Your task to perform on an android device: Set the phone to "Do not disturb". Image 0: 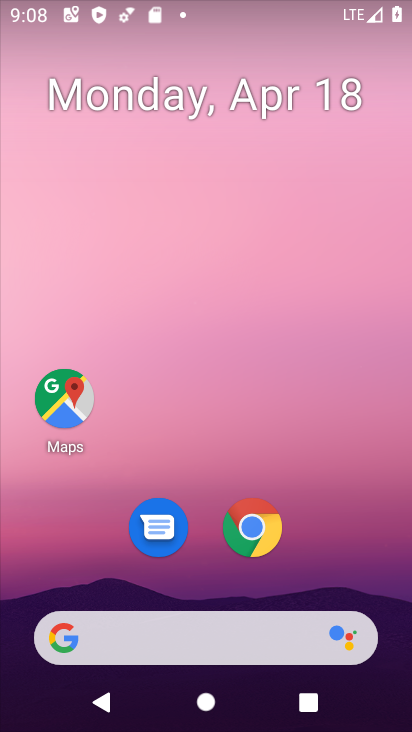
Step 0: drag from (360, 576) to (265, 56)
Your task to perform on an android device: Set the phone to "Do not disturb". Image 1: 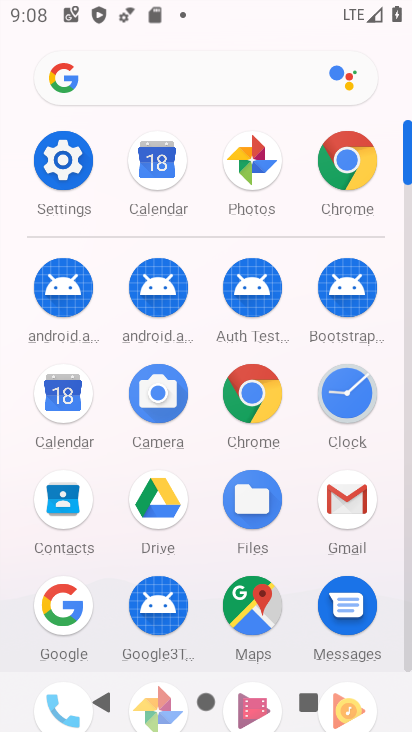
Step 1: click (59, 155)
Your task to perform on an android device: Set the phone to "Do not disturb". Image 2: 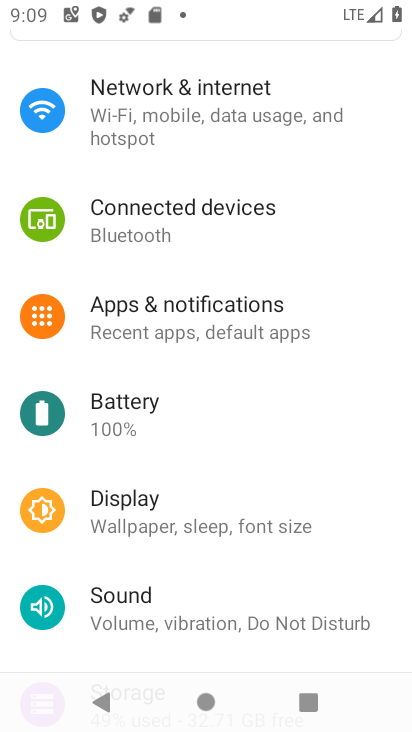
Step 2: click (271, 610)
Your task to perform on an android device: Set the phone to "Do not disturb". Image 3: 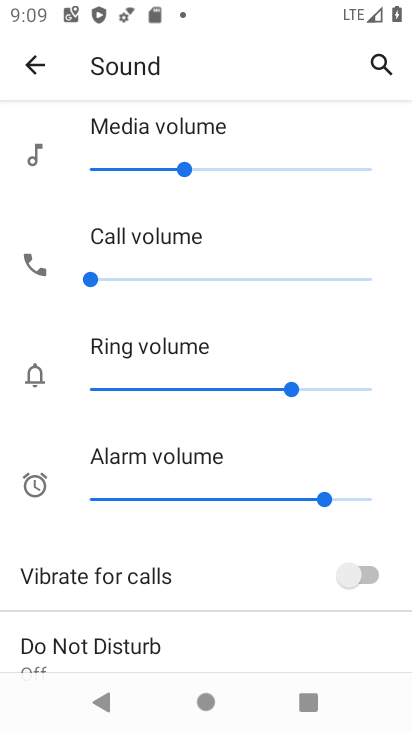
Step 3: drag from (254, 527) to (231, 173)
Your task to perform on an android device: Set the phone to "Do not disturb". Image 4: 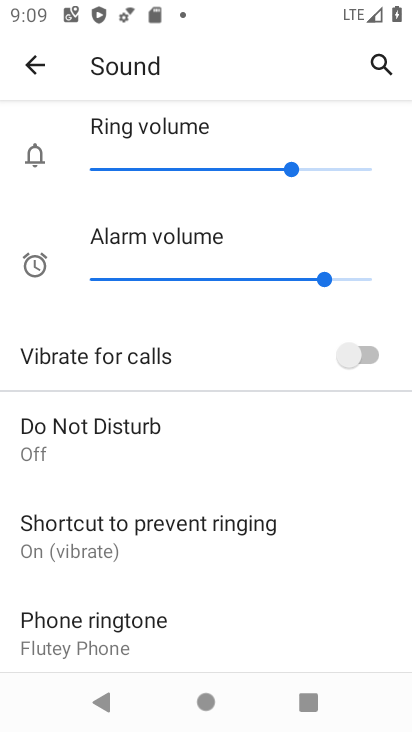
Step 4: click (186, 438)
Your task to perform on an android device: Set the phone to "Do not disturb". Image 5: 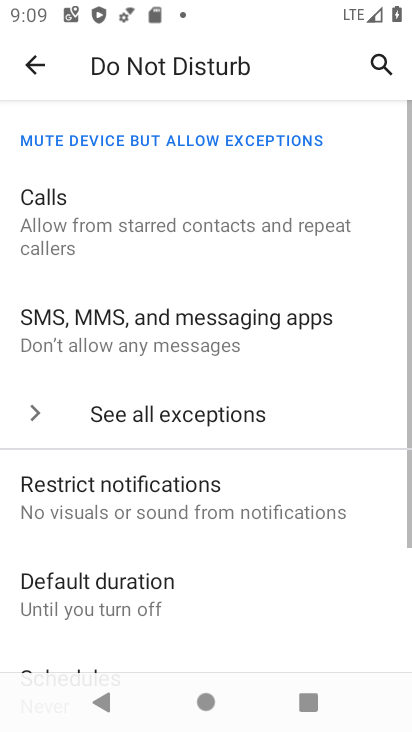
Step 5: drag from (251, 568) to (247, 107)
Your task to perform on an android device: Set the phone to "Do not disturb". Image 6: 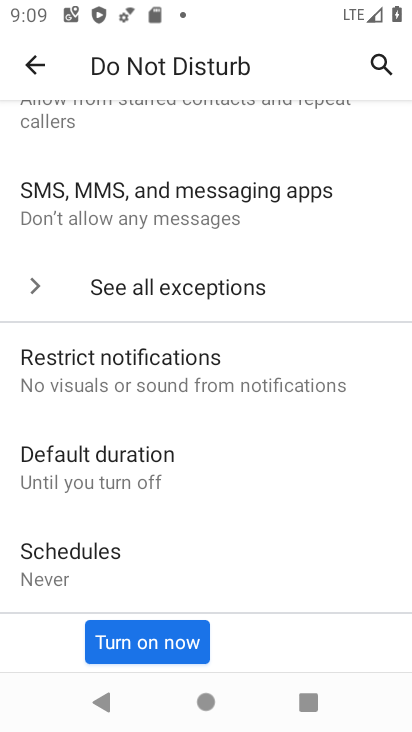
Step 6: click (156, 636)
Your task to perform on an android device: Set the phone to "Do not disturb". Image 7: 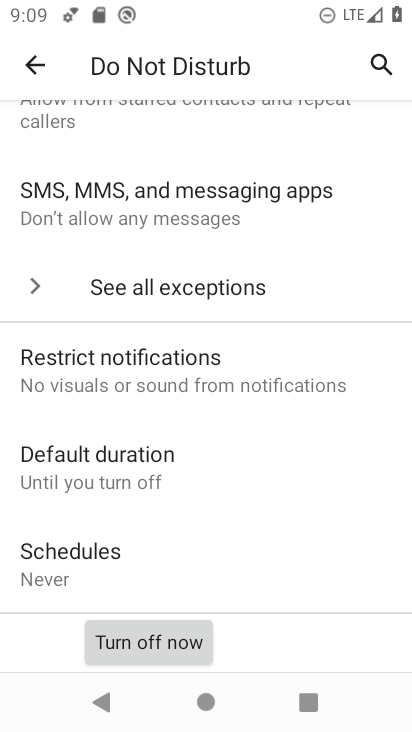
Step 7: task complete